Your task to perform on an android device: turn on translation in the chrome app Image 0: 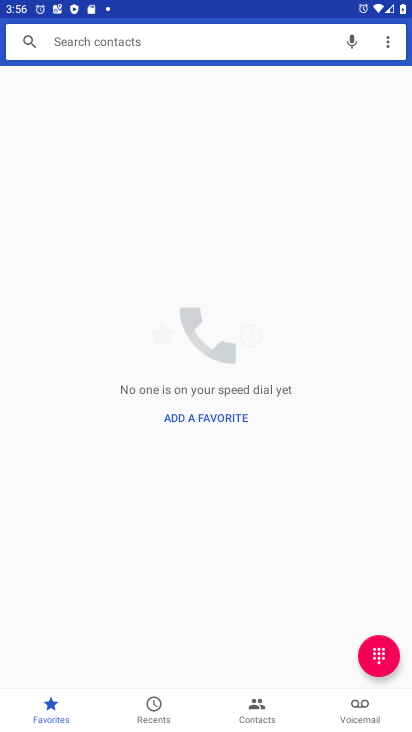
Step 0: press home button
Your task to perform on an android device: turn on translation in the chrome app Image 1: 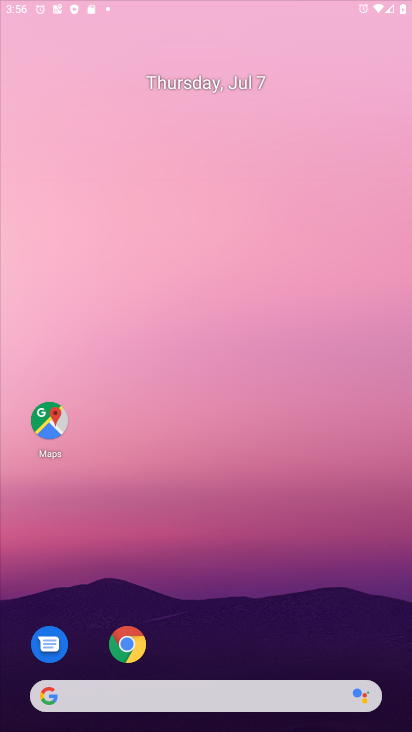
Step 1: drag from (143, 665) to (330, 5)
Your task to perform on an android device: turn on translation in the chrome app Image 2: 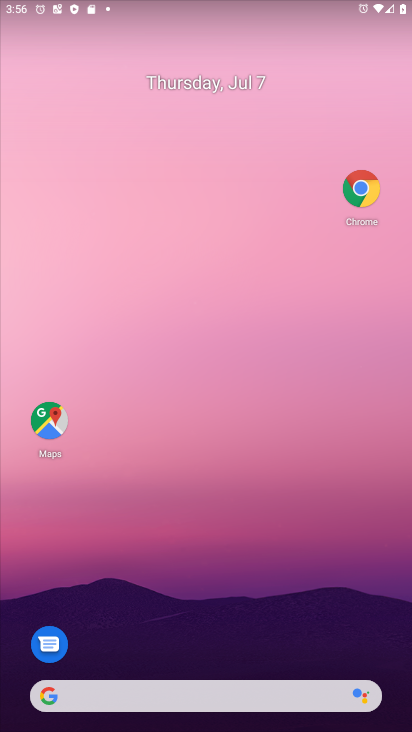
Step 2: drag from (296, 622) to (303, 63)
Your task to perform on an android device: turn on translation in the chrome app Image 3: 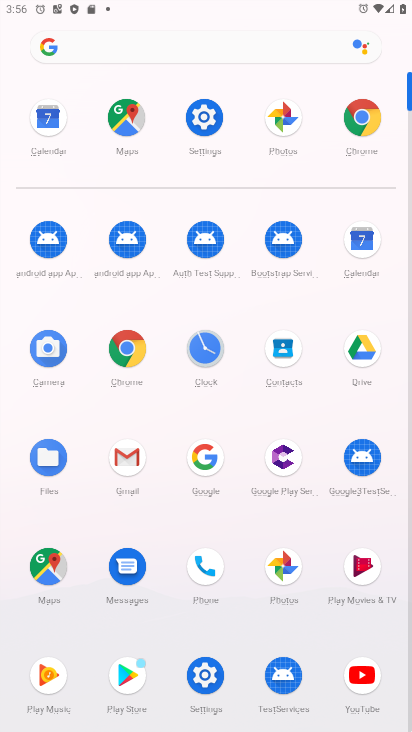
Step 3: click (366, 135)
Your task to perform on an android device: turn on translation in the chrome app Image 4: 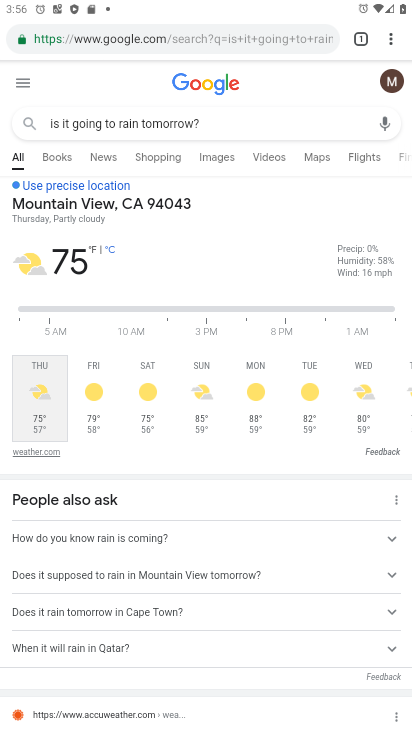
Step 4: drag from (385, 40) to (254, 431)
Your task to perform on an android device: turn on translation in the chrome app Image 5: 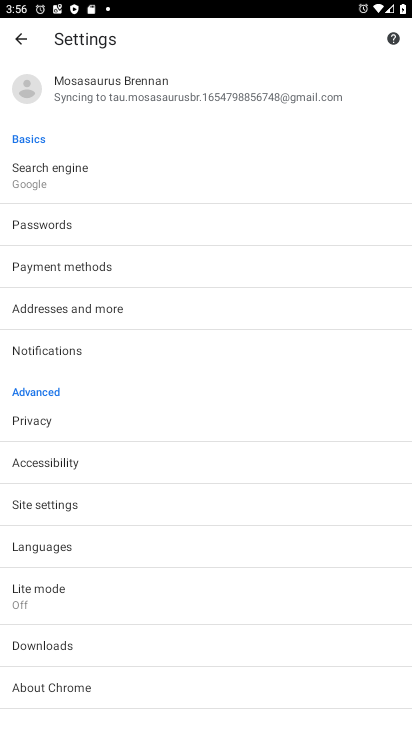
Step 5: click (61, 538)
Your task to perform on an android device: turn on translation in the chrome app Image 6: 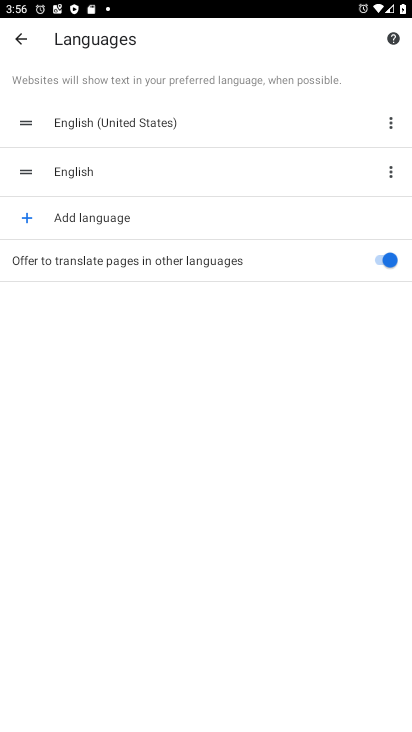
Step 6: click (202, 268)
Your task to perform on an android device: turn on translation in the chrome app Image 7: 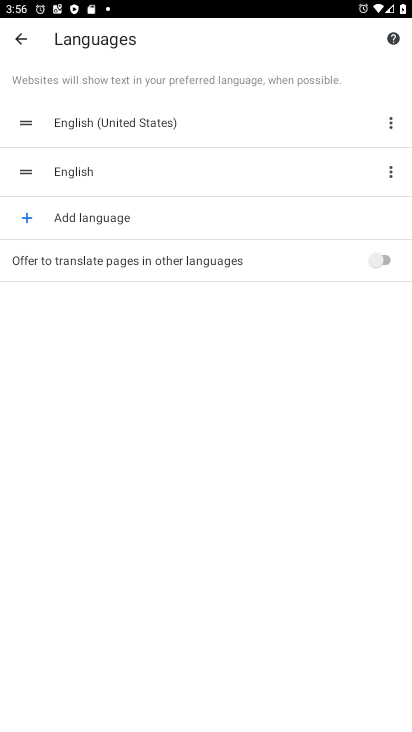
Step 7: click (330, 256)
Your task to perform on an android device: turn on translation in the chrome app Image 8: 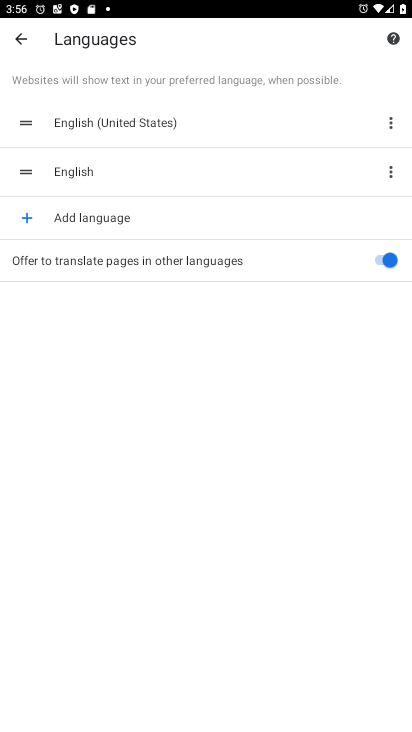
Step 8: task complete